Your task to perform on an android device: see sites visited before in the chrome app Image 0: 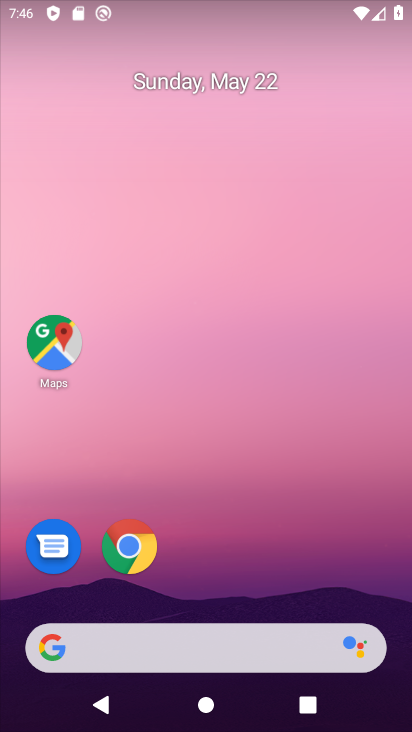
Step 0: press home button
Your task to perform on an android device: see sites visited before in the chrome app Image 1: 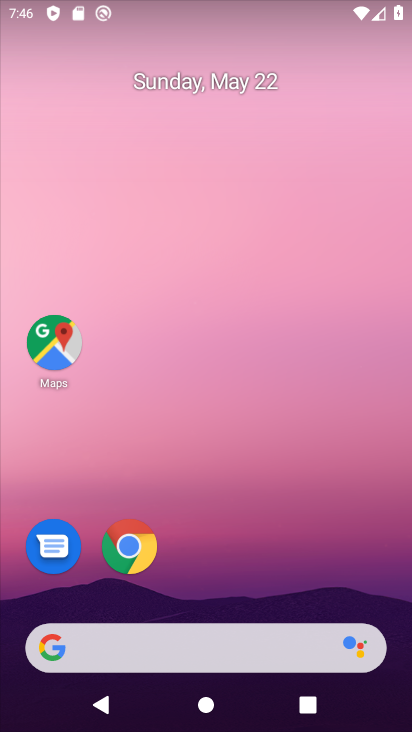
Step 1: click (133, 552)
Your task to perform on an android device: see sites visited before in the chrome app Image 2: 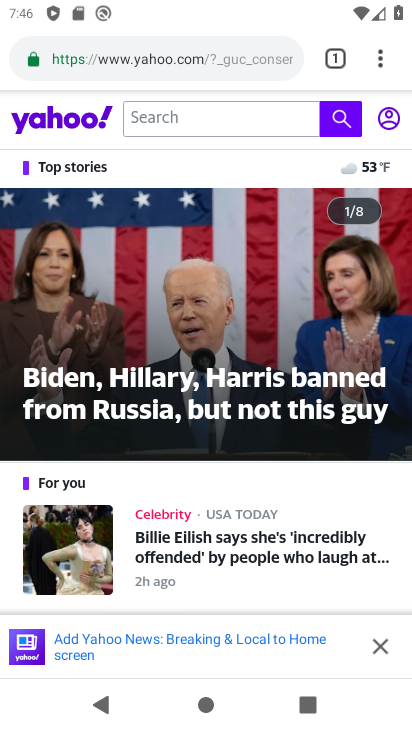
Step 2: task complete